Your task to perform on an android device: move a message to another label in the gmail app Image 0: 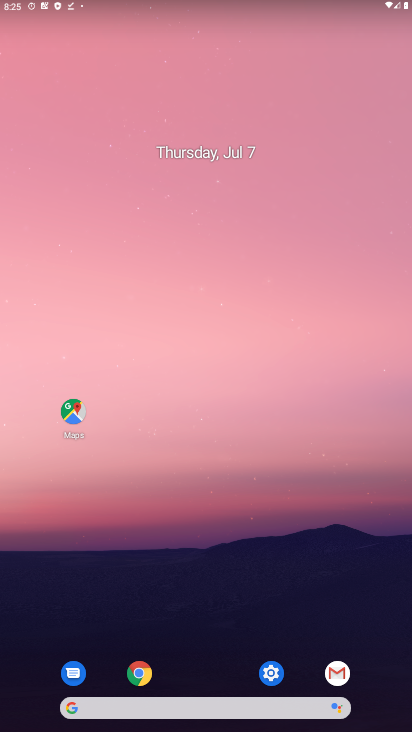
Step 0: click (333, 675)
Your task to perform on an android device: move a message to another label in the gmail app Image 1: 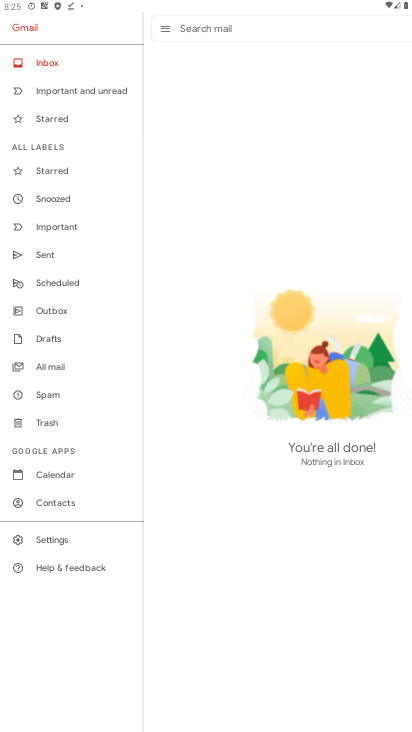
Step 1: click (65, 533)
Your task to perform on an android device: move a message to another label in the gmail app Image 2: 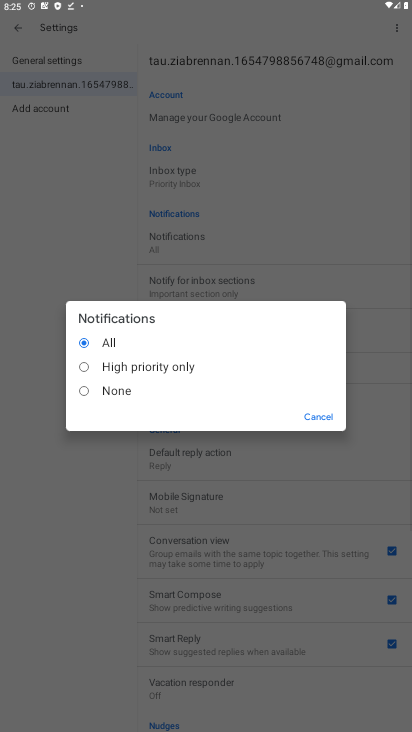
Step 2: click (305, 417)
Your task to perform on an android device: move a message to another label in the gmail app Image 3: 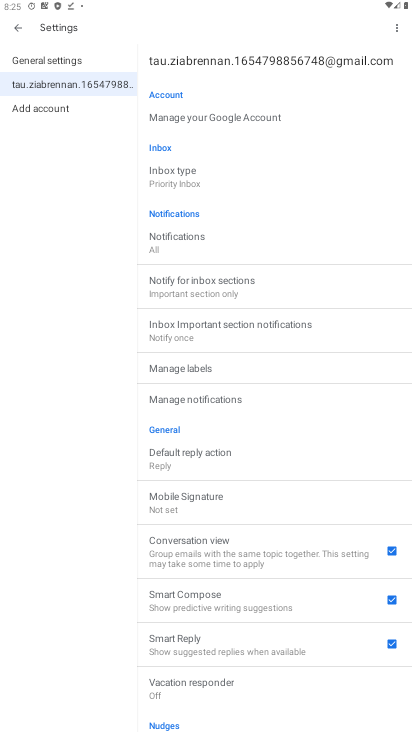
Step 3: click (204, 366)
Your task to perform on an android device: move a message to another label in the gmail app Image 4: 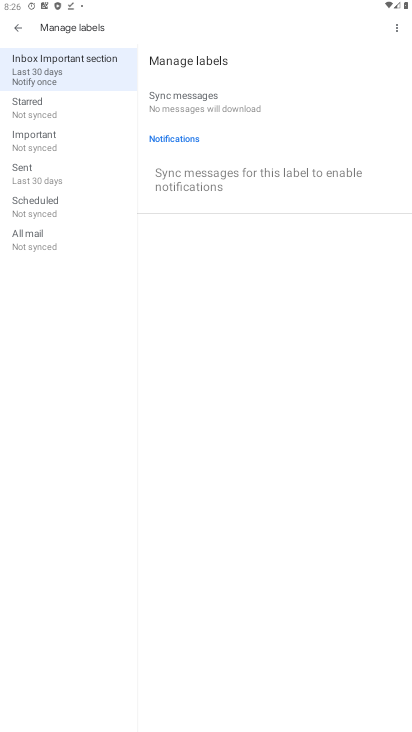
Step 4: task complete